Your task to perform on an android device: Open accessibility settings Image 0: 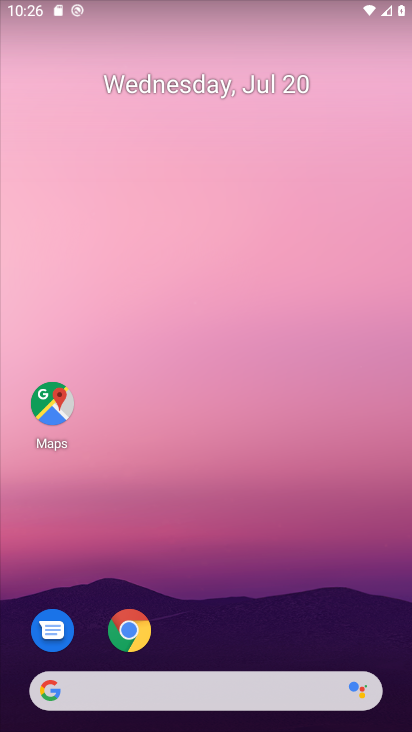
Step 0: drag from (290, 444) to (249, 2)
Your task to perform on an android device: Open accessibility settings Image 1: 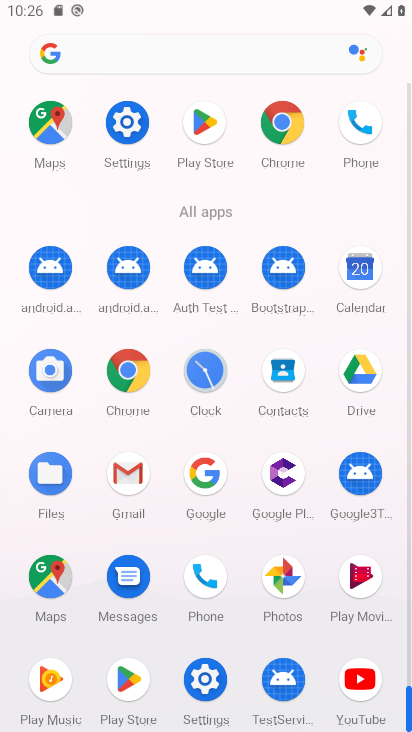
Step 1: click (131, 130)
Your task to perform on an android device: Open accessibility settings Image 2: 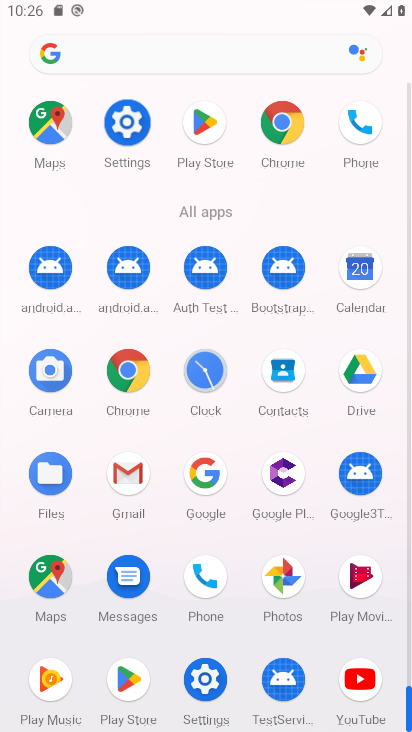
Step 2: click (130, 131)
Your task to perform on an android device: Open accessibility settings Image 3: 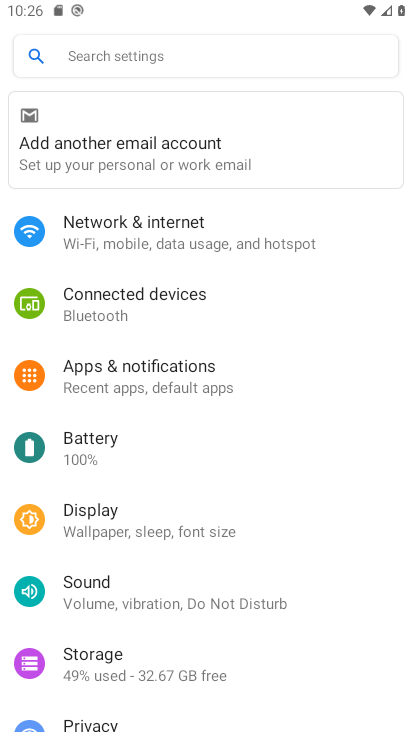
Step 3: drag from (170, 404) to (110, 63)
Your task to perform on an android device: Open accessibility settings Image 4: 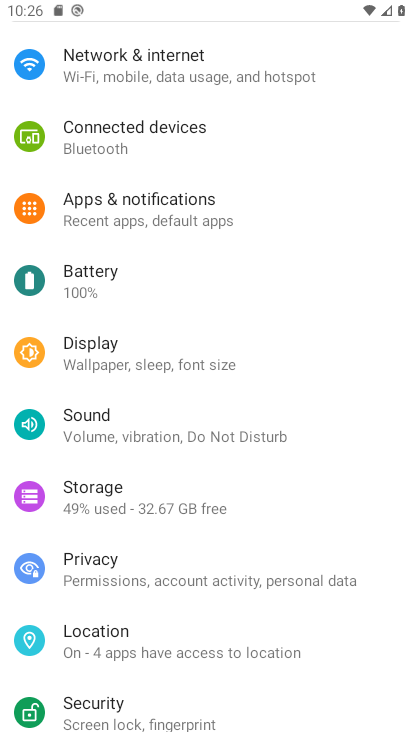
Step 4: drag from (152, 536) to (131, 168)
Your task to perform on an android device: Open accessibility settings Image 5: 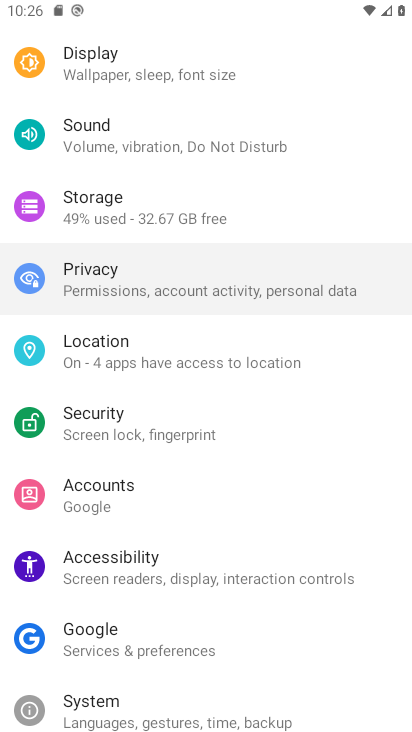
Step 5: drag from (168, 478) to (153, 183)
Your task to perform on an android device: Open accessibility settings Image 6: 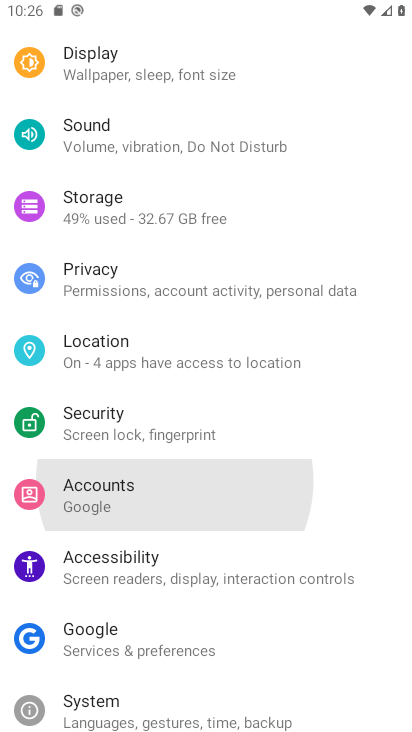
Step 6: drag from (199, 579) to (157, 285)
Your task to perform on an android device: Open accessibility settings Image 7: 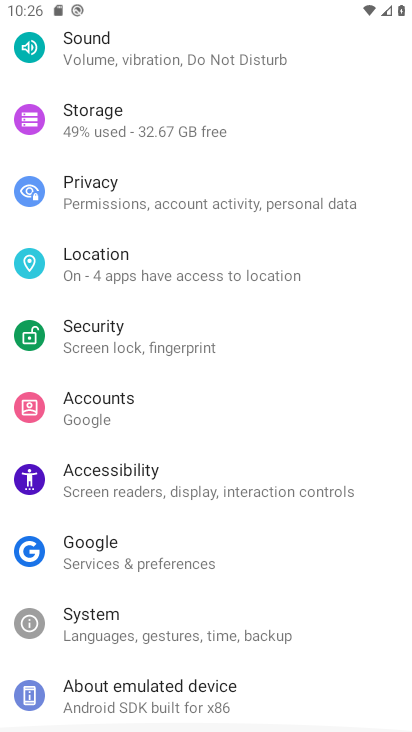
Step 7: drag from (127, 545) to (104, 252)
Your task to perform on an android device: Open accessibility settings Image 8: 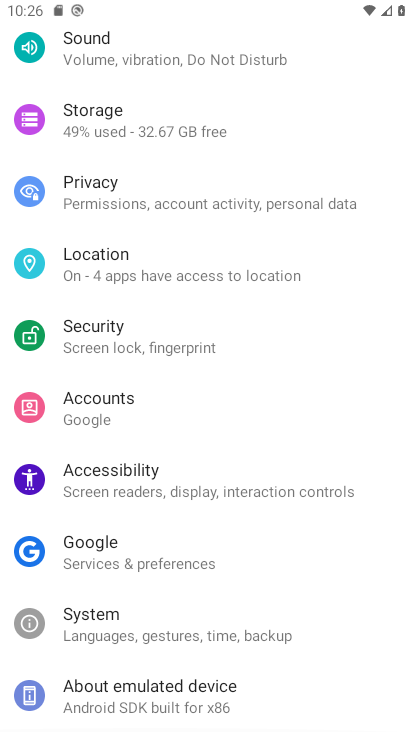
Step 8: click (114, 484)
Your task to perform on an android device: Open accessibility settings Image 9: 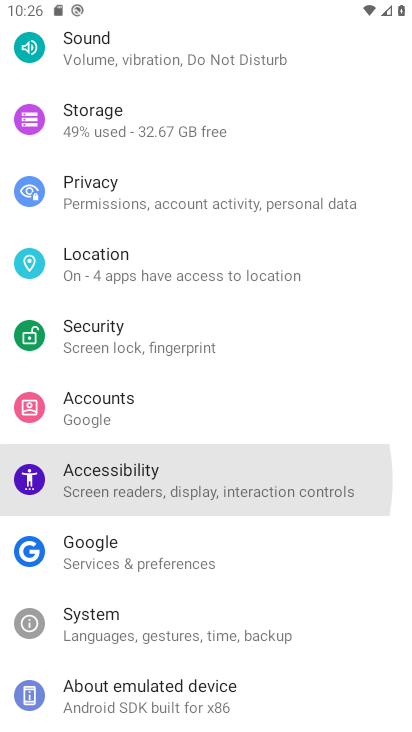
Step 9: click (114, 484)
Your task to perform on an android device: Open accessibility settings Image 10: 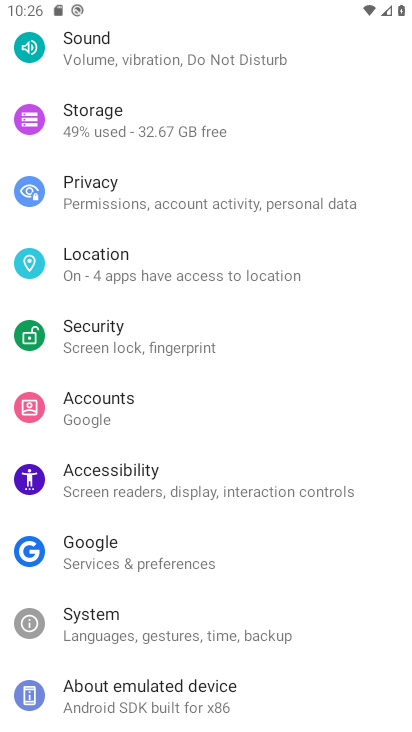
Step 10: click (114, 484)
Your task to perform on an android device: Open accessibility settings Image 11: 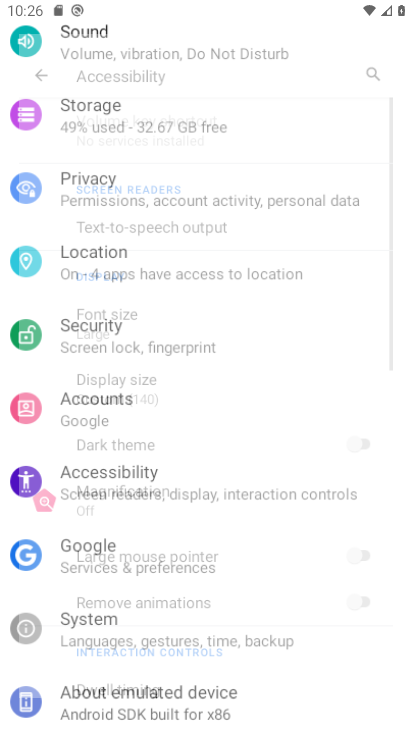
Step 11: click (116, 485)
Your task to perform on an android device: Open accessibility settings Image 12: 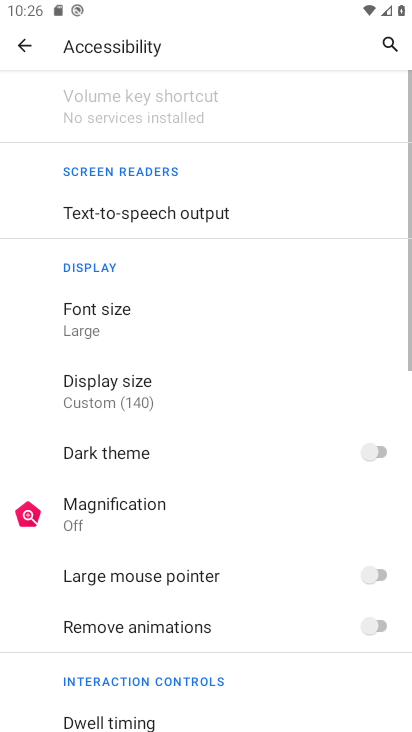
Step 12: click (118, 485)
Your task to perform on an android device: Open accessibility settings Image 13: 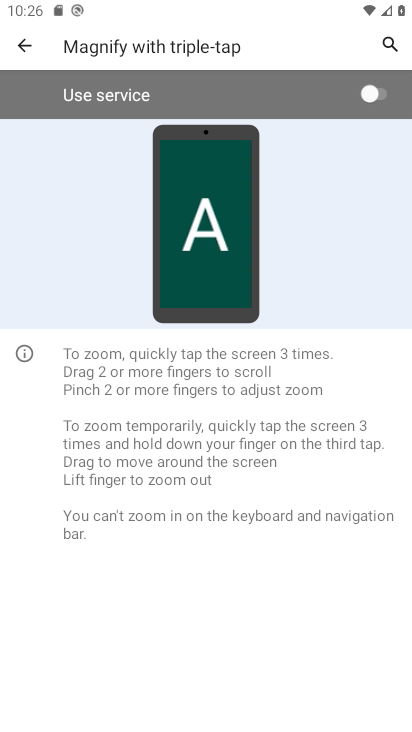
Step 13: task complete